Your task to perform on an android device: Do I have any events this weekend? Image 0: 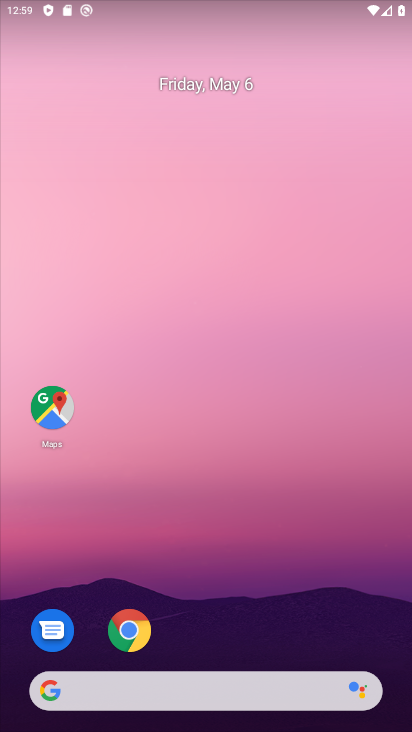
Step 0: drag from (256, 511) to (225, 38)
Your task to perform on an android device: Do I have any events this weekend? Image 1: 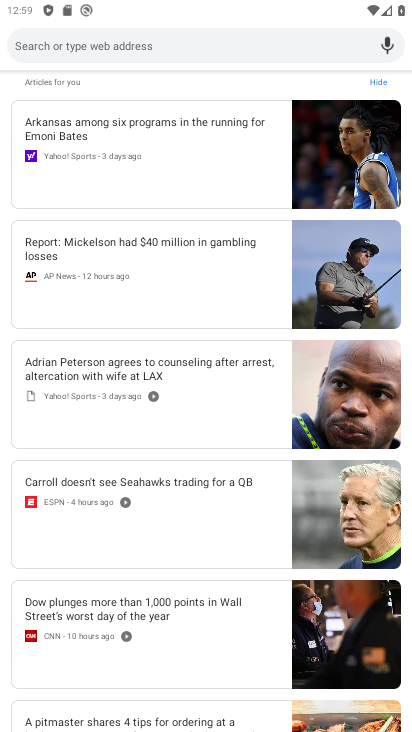
Step 1: press home button
Your task to perform on an android device: Do I have any events this weekend? Image 2: 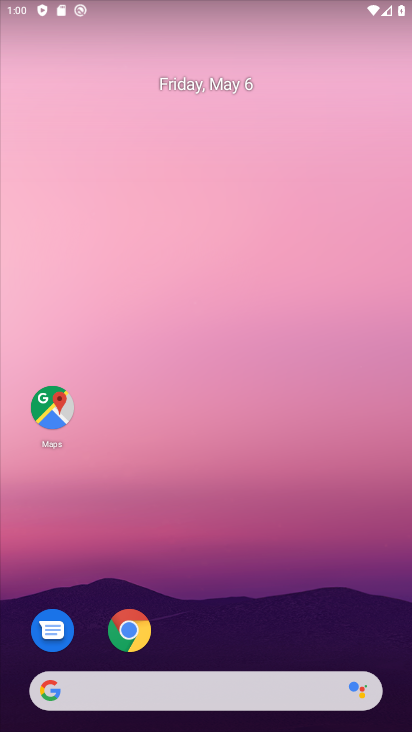
Step 2: drag from (329, 572) to (293, 110)
Your task to perform on an android device: Do I have any events this weekend? Image 3: 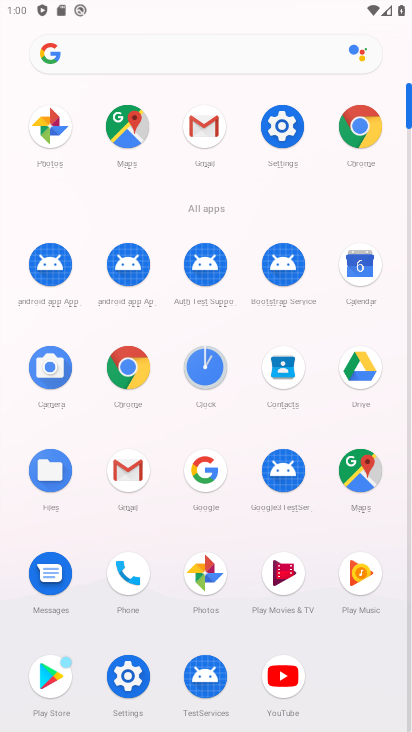
Step 3: click (384, 260)
Your task to perform on an android device: Do I have any events this weekend? Image 4: 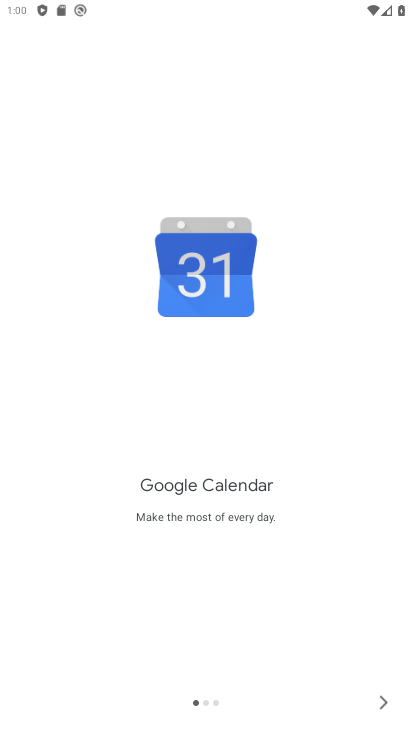
Step 4: click (375, 695)
Your task to perform on an android device: Do I have any events this weekend? Image 5: 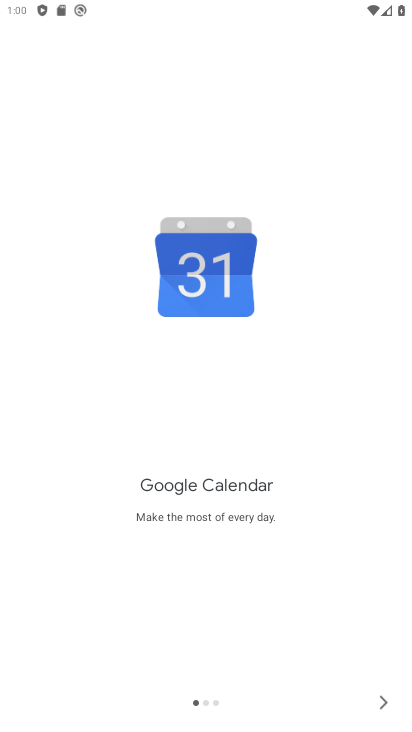
Step 5: click (375, 695)
Your task to perform on an android device: Do I have any events this weekend? Image 6: 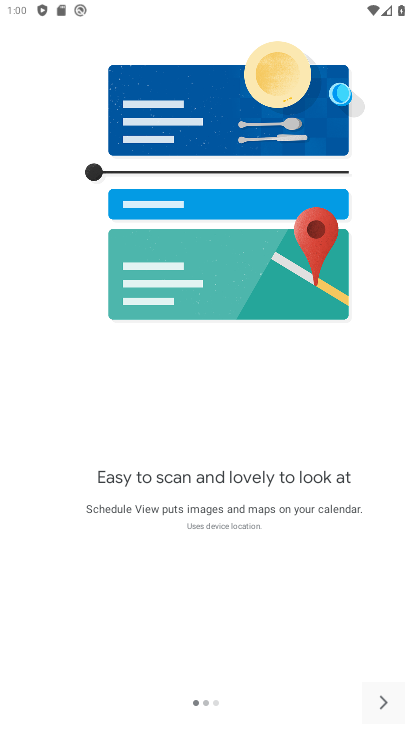
Step 6: click (375, 695)
Your task to perform on an android device: Do I have any events this weekend? Image 7: 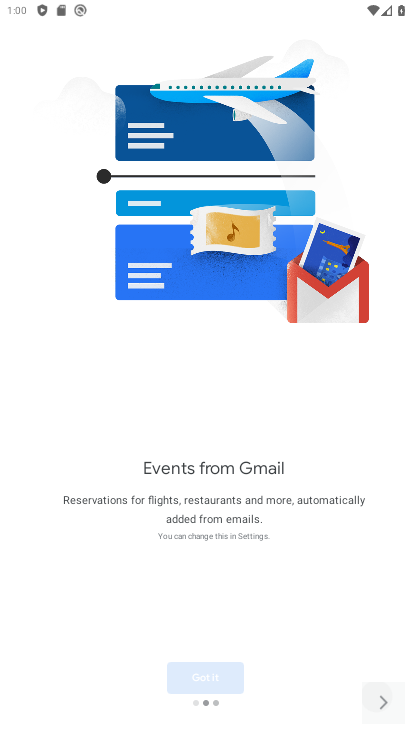
Step 7: click (375, 695)
Your task to perform on an android device: Do I have any events this weekend? Image 8: 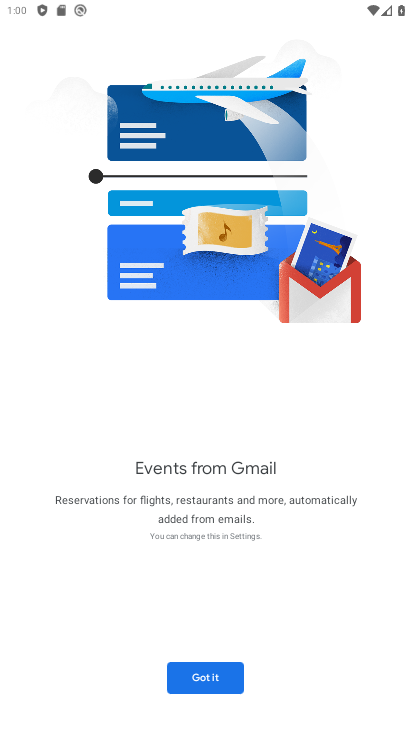
Step 8: click (375, 695)
Your task to perform on an android device: Do I have any events this weekend? Image 9: 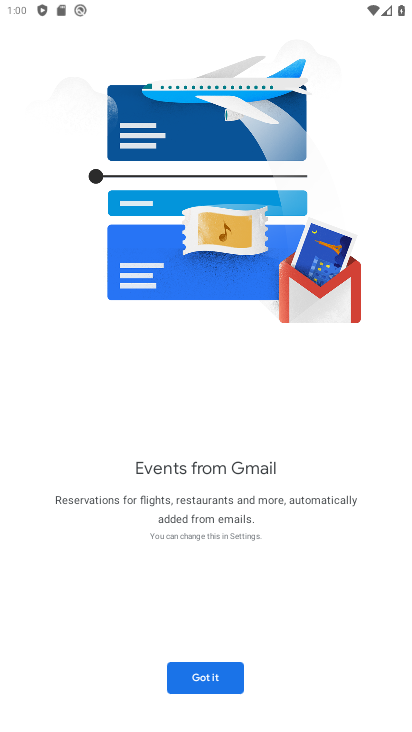
Step 9: click (364, 695)
Your task to perform on an android device: Do I have any events this weekend? Image 10: 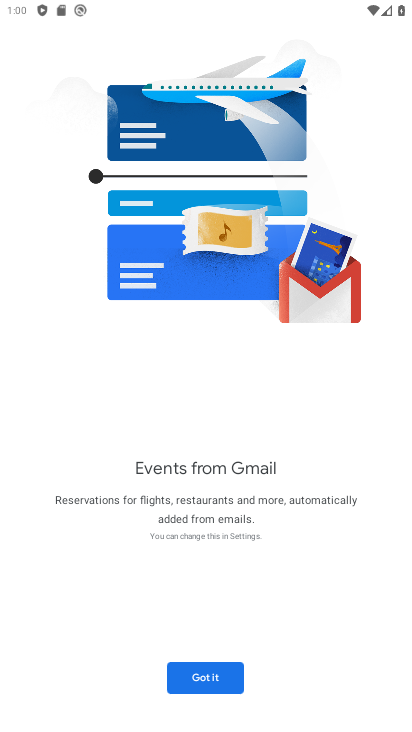
Step 10: click (228, 675)
Your task to perform on an android device: Do I have any events this weekend? Image 11: 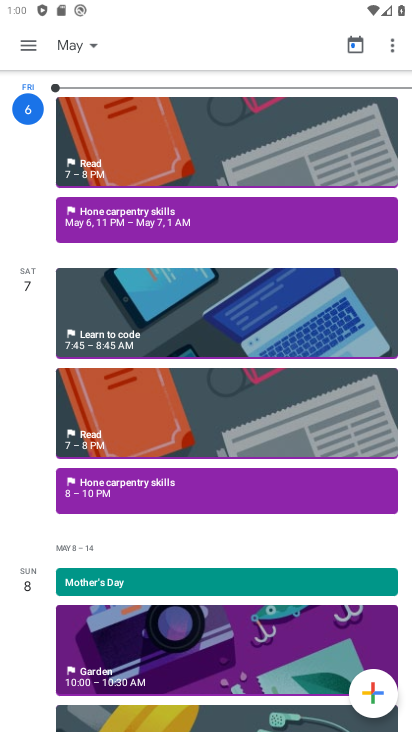
Step 11: click (29, 50)
Your task to perform on an android device: Do I have any events this weekend? Image 12: 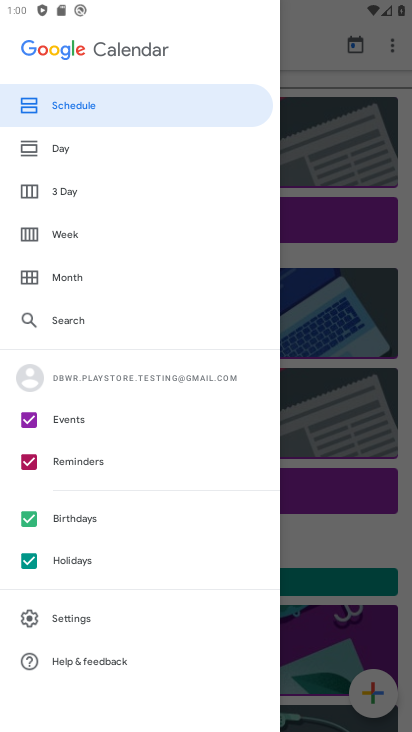
Step 12: click (306, 99)
Your task to perform on an android device: Do I have any events this weekend? Image 13: 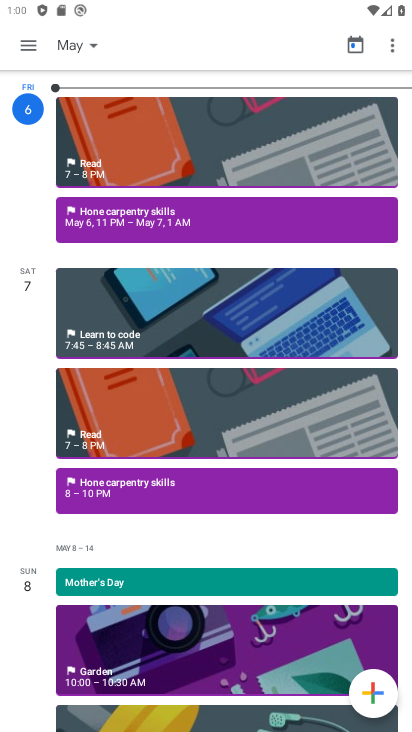
Step 13: click (68, 44)
Your task to perform on an android device: Do I have any events this weekend? Image 14: 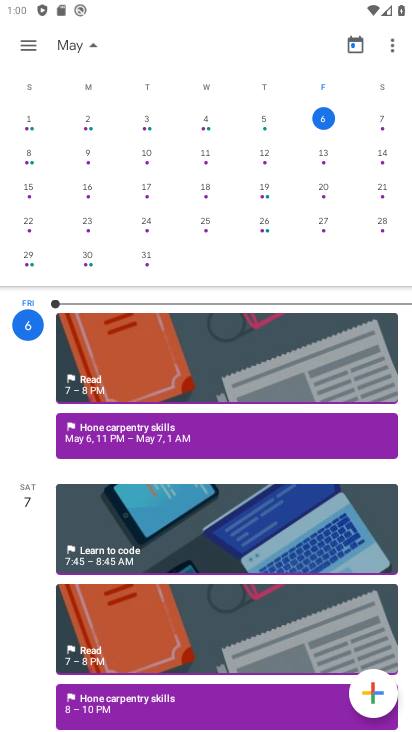
Step 14: click (22, 35)
Your task to perform on an android device: Do I have any events this weekend? Image 15: 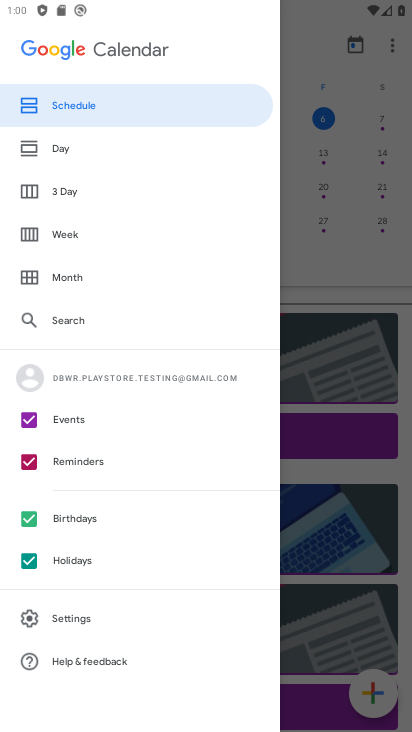
Step 15: click (27, 113)
Your task to perform on an android device: Do I have any events this weekend? Image 16: 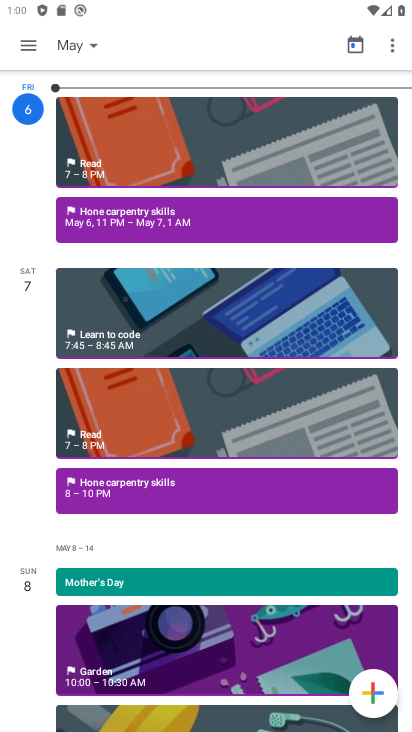
Step 16: click (71, 381)
Your task to perform on an android device: Do I have any events this weekend? Image 17: 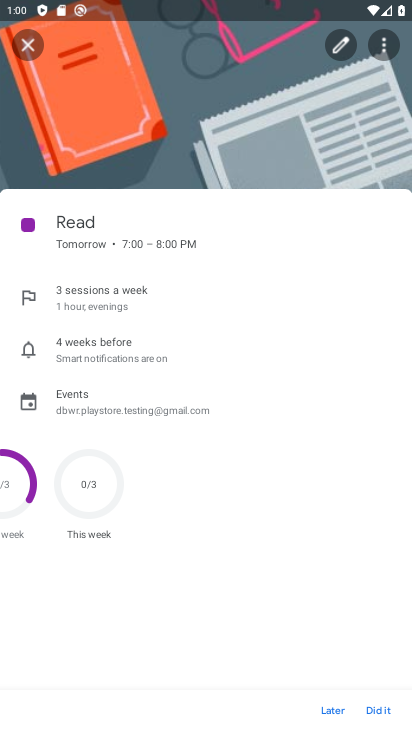
Step 17: task complete